Your task to perform on an android device: Open my contact list Image 0: 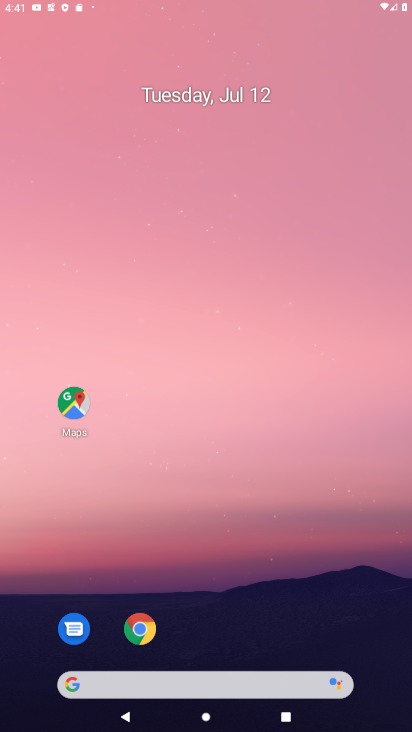
Step 0: press home button
Your task to perform on an android device: Open my contact list Image 1: 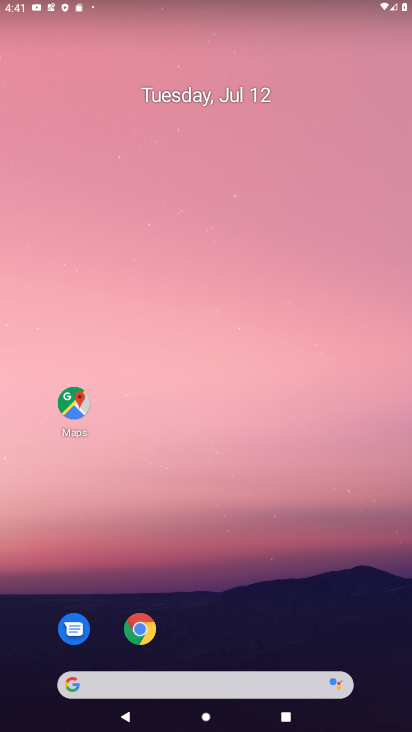
Step 1: drag from (280, 641) to (276, 73)
Your task to perform on an android device: Open my contact list Image 2: 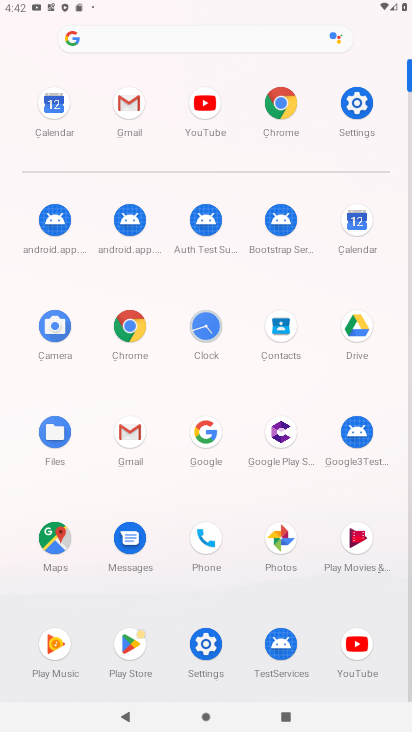
Step 2: click (282, 326)
Your task to perform on an android device: Open my contact list Image 3: 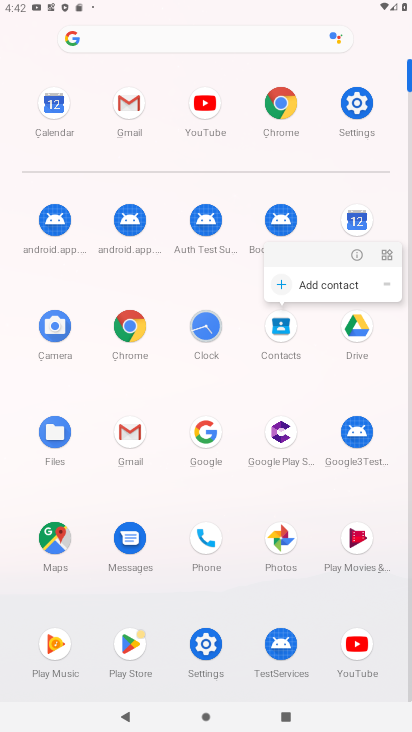
Step 3: click (281, 334)
Your task to perform on an android device: Open my contact list Image 4: 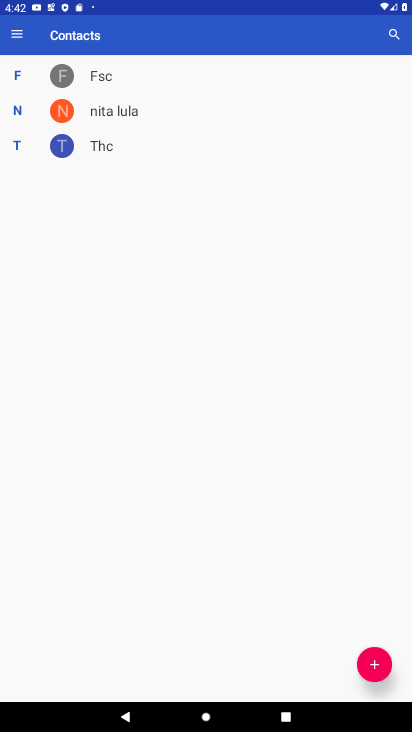
Step 4: task complete